Your task to perform on an android device: What's on my calendar tomorrow? Image 0: 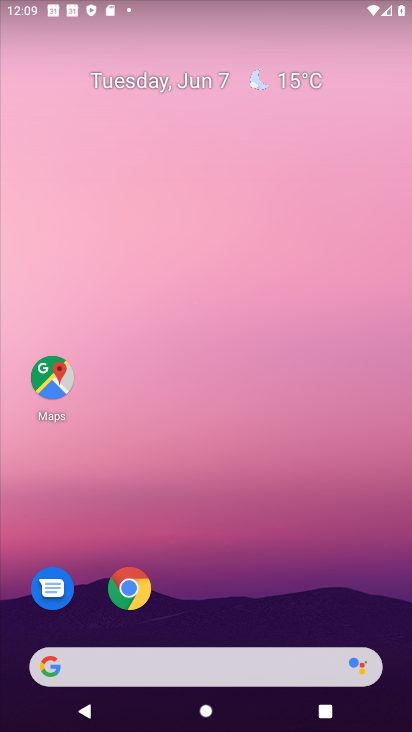
Step 0: drag from (243, 613) to (302, 93)
Your task to perform on an android device: What's on my calendar tomorrow? Image 1: 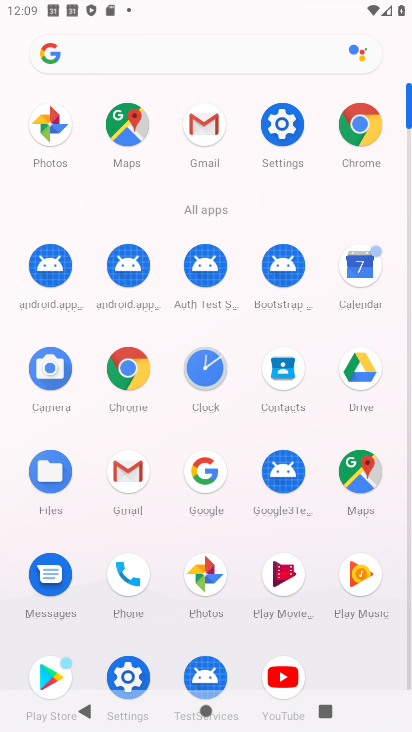
Step 1: click (361, 268)
Your task to perform on an android device: What's on my calendar tomorrow? Image 2: 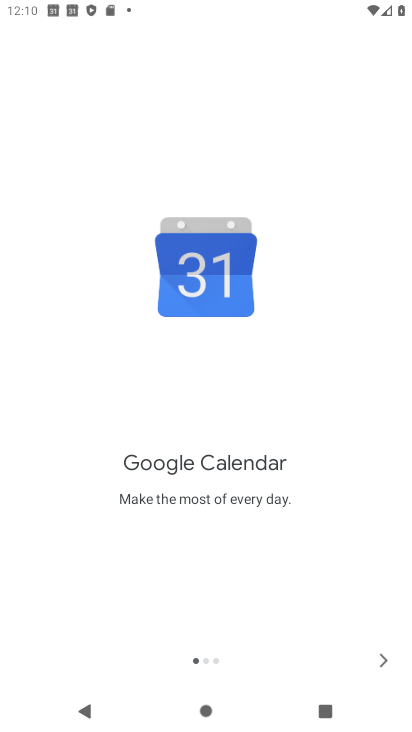
Step 2: click (388, 674)
Your task to perform on an android device: What's on my calendar tomorrow? Image 3: 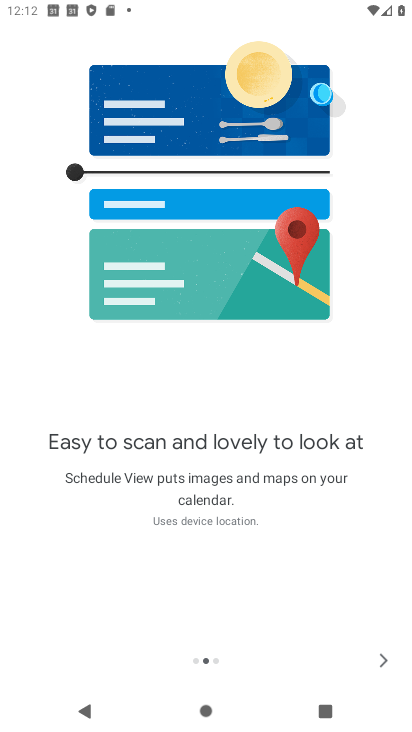
Step 3: click (376, 658)
Your task to perform on an android device: What's on my calendar tomorrow? Image 4: 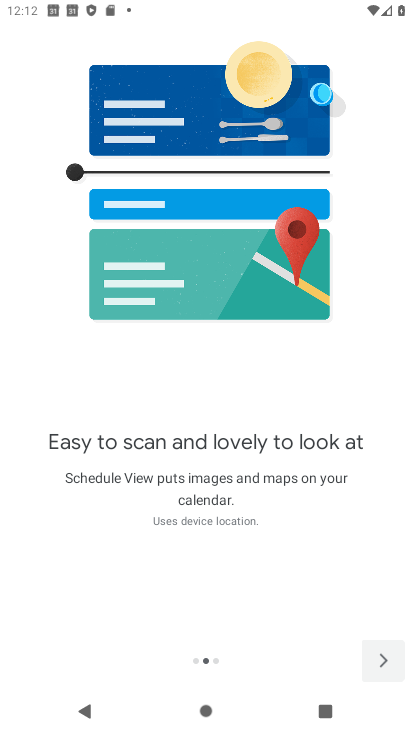
Step 4: click (376, 658)
Your task to perform on an android device: What's on my calendar tomorrow? Image 5: 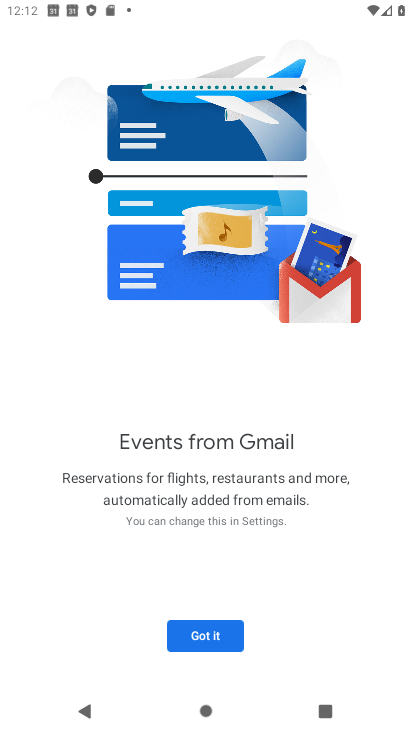
Step 5: click (376, 658)
Your task to perform on an android device: What's on my calendar tomorrow? Image 6: 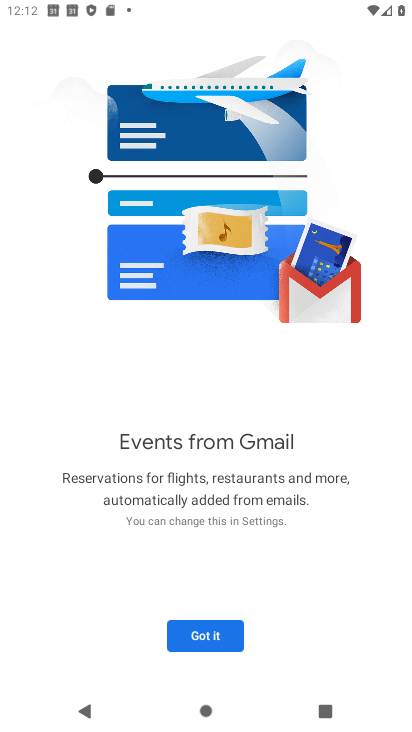
Step 6: click (246, 641)
Your task to perform on an android device: What's on my calendar tomorrow? Image 7: 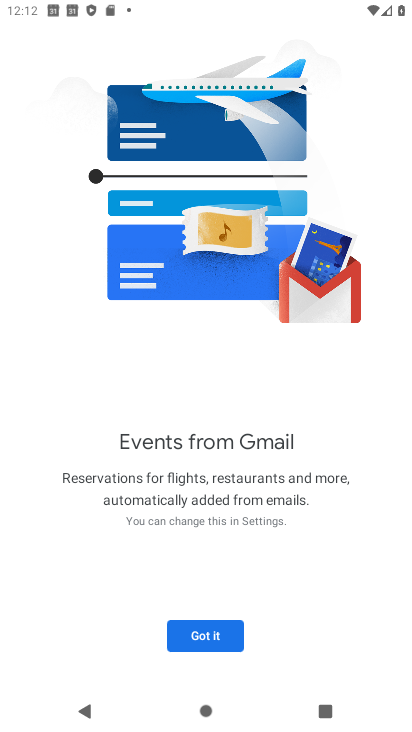
Step 7: click (222, 636)
Your task to perform on an android device: What's on my calendar tomorrow? Image 8: 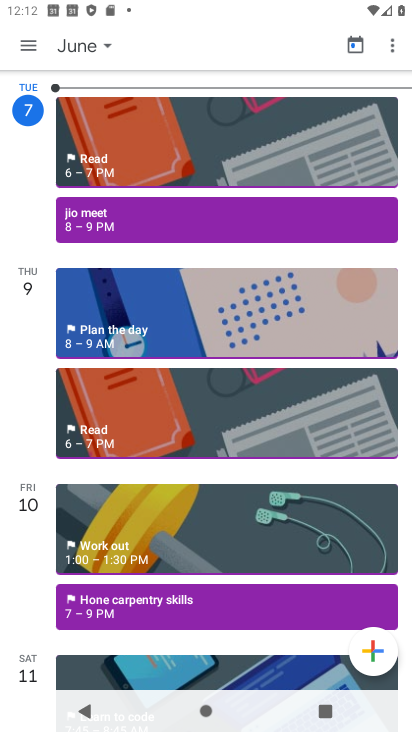
Step 8: task complete